Your task to perform on an android device: Check the weather Image 0: 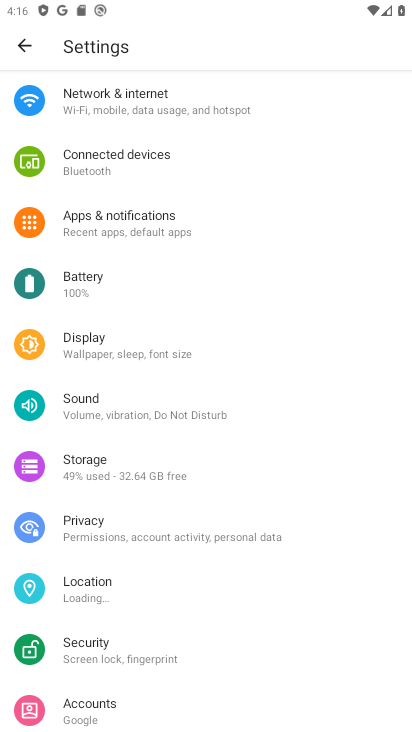
Step 0: press home button
Your task to perform on an android device: Check the weather Image 1: 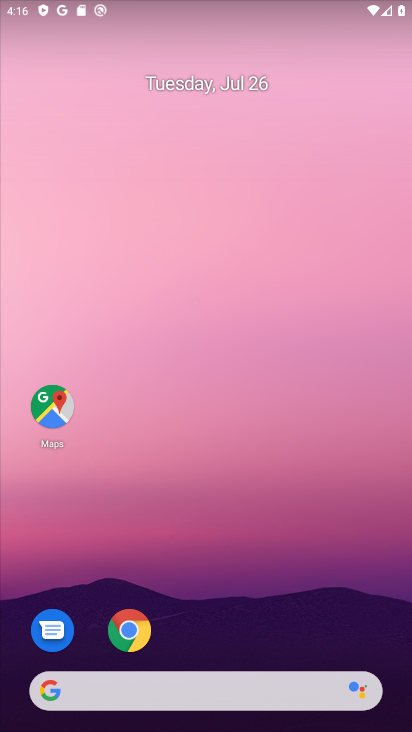
Step 1: click (127, 631)
Your task to perform on an android device: Check the weather Image 2: 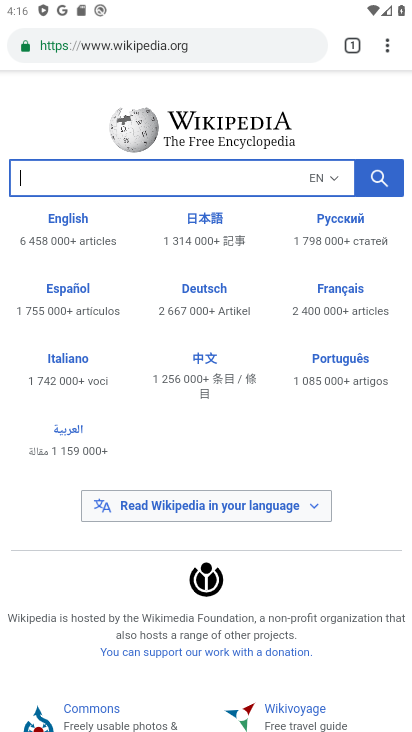
Step 2: click (192, 38)
Your task to perform on an android device: Check the weather Image 3: 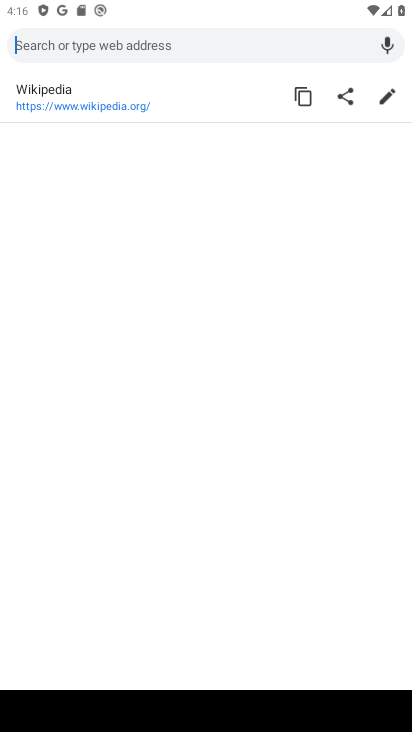
Step 3: type "weather"
Your task to perform on an android device: Check the weather Image 4: 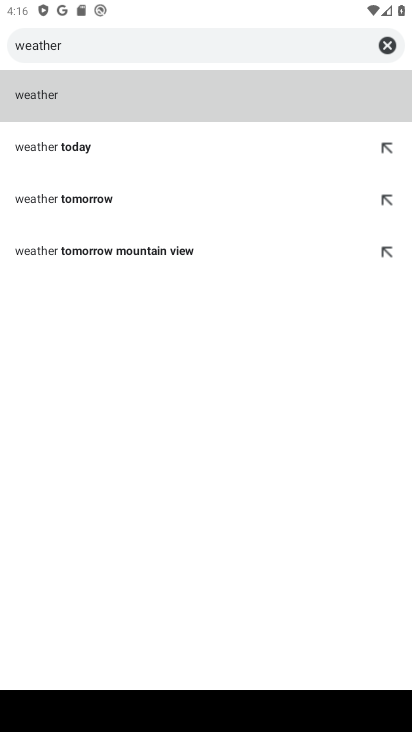
Step 4: click (41, 97)
Your task to perform on an android device: Check the weather Image 5: 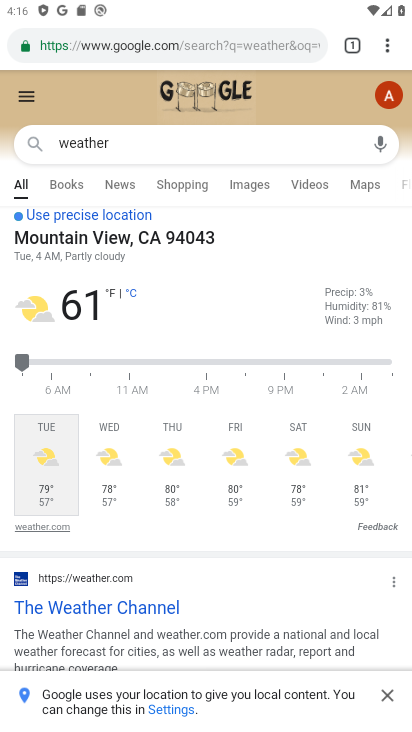
Step 5: task complete